Your task to perform on an android device: Open the web browser Image 0: 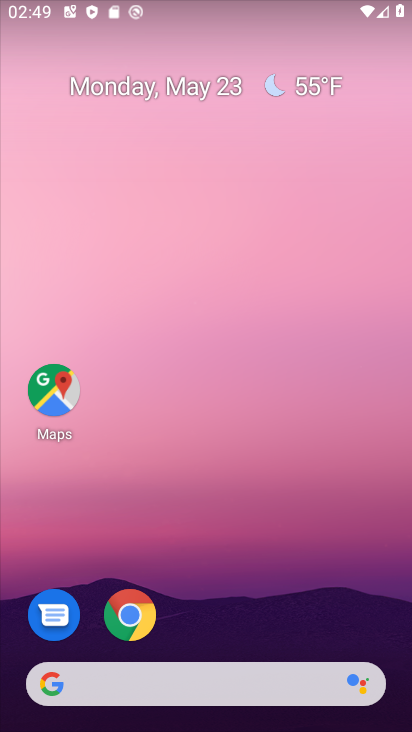
Step 0: drag from (376, 634) to (370, 289)
Your task to perform on an android device: Open the web browser Image 1: 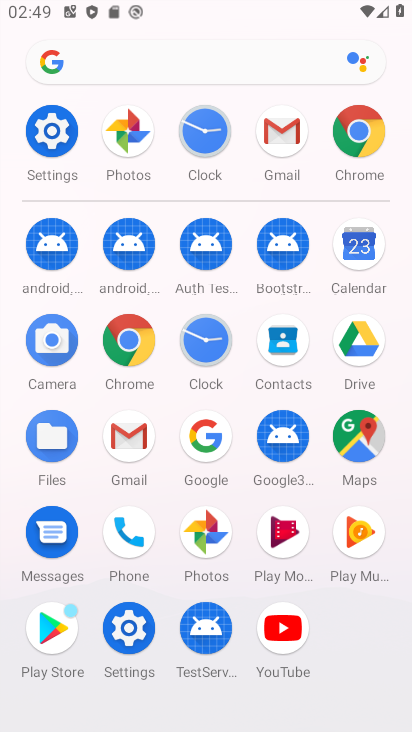
Step 1: click (132, 350)
Your task to perform on an android device: Open the web browser Image 2: 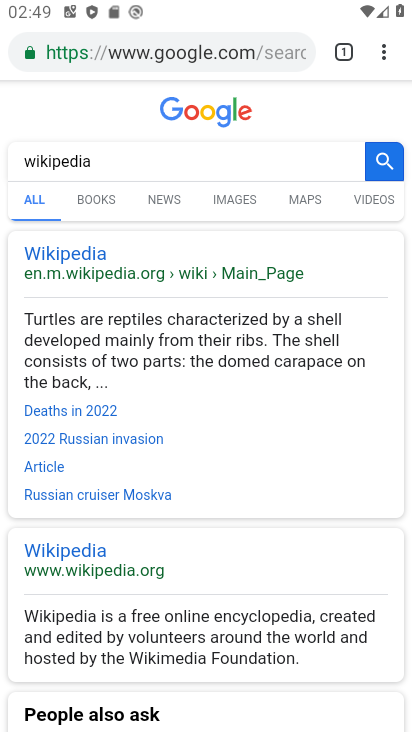
Step 2: task complete